Your task to perform on an android device: open chrome and create a bookmark for the current page Image 0: 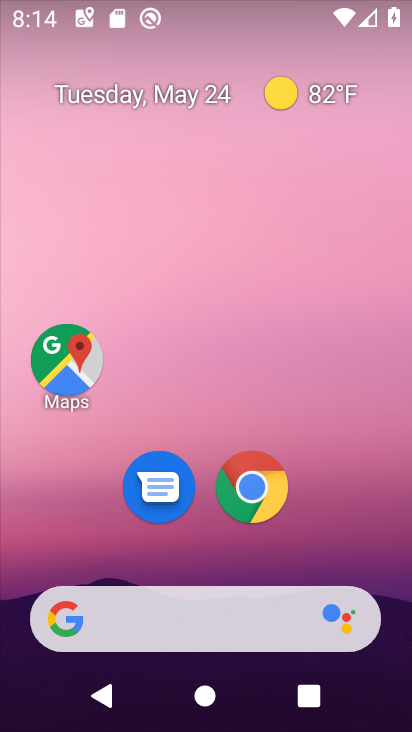
Step 0: drag from (379, 558) to (378, 112)
Your task to perform on an android device: open chrome and create a bookmark for the current page Image 1: 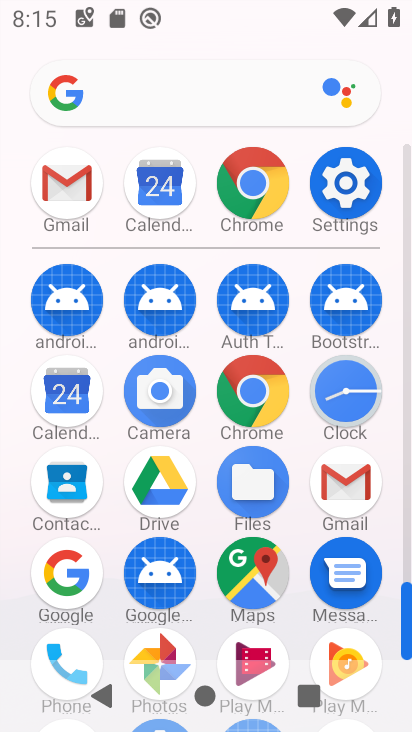
Step 1: click (244, 389)
Your task to perform on an android device: open chrome and create a bookmark for the current page Image 2: 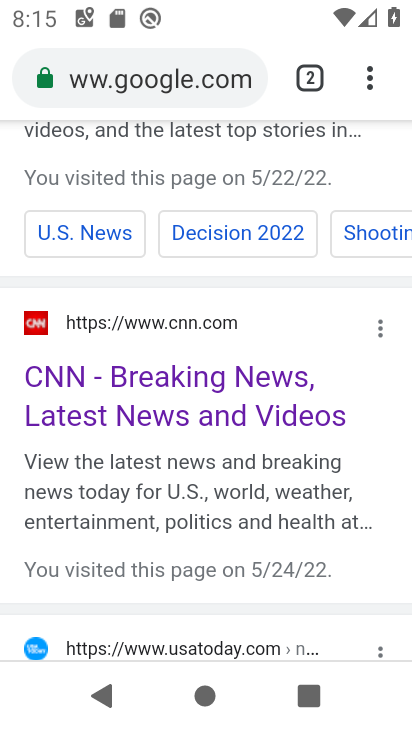
Step 2: task complete